Your task to perform on an android device: Open calendar and show me the fourth week of next month Image 0: 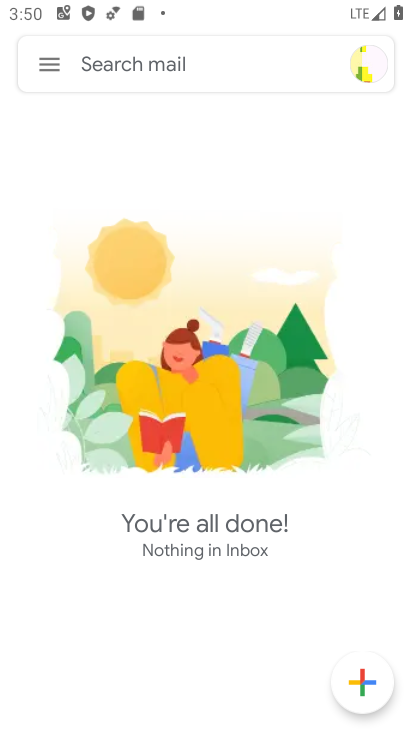
Step 0: press home button
Your task to perform on an android device: Open calendar and show me the fourth week of next month Image 1: 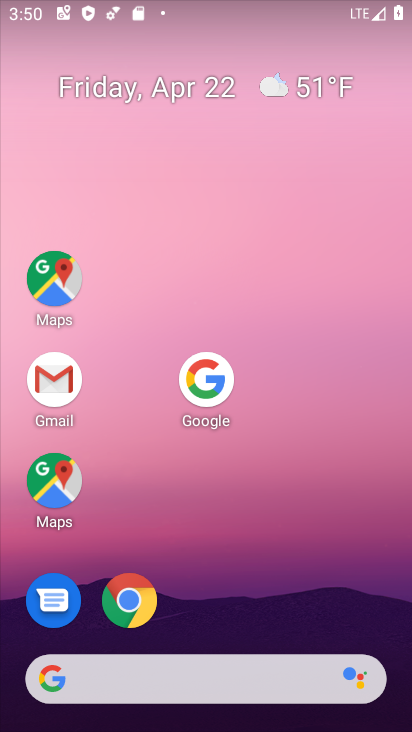
Step 1: drag from (274, 684) to (235, 226)
Your task to perform on an android device: Open calendar and show me the fourth week of next month Image 2: 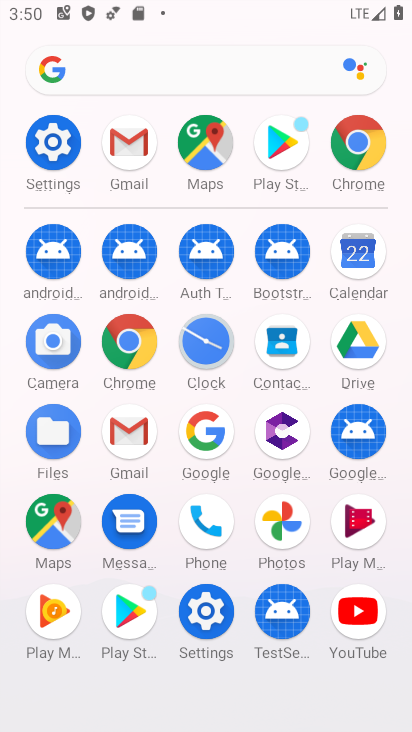
Step 2: click (350, 251)
Your task to perform on an android device: Open calendar and show me the fourth week of next month Image 3: 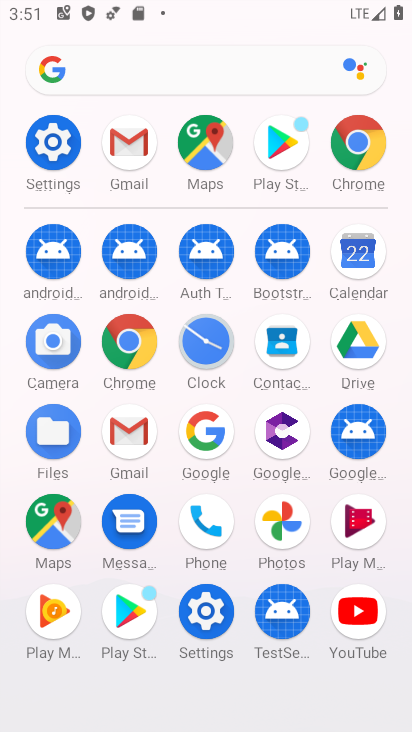
Step 3: click (355, 248)
Your task to perform on an android device: Open calendar and show me the fourth week of next month Image 4: 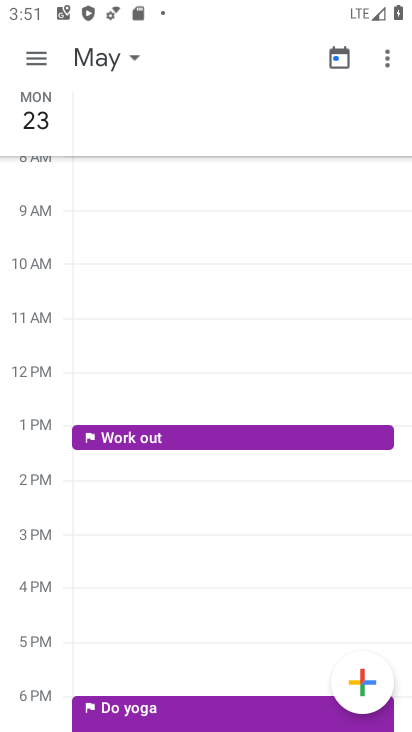
Step 4: task complete